Your task to perform on an android device: turn vacation reply on in the gmail app Image 0: 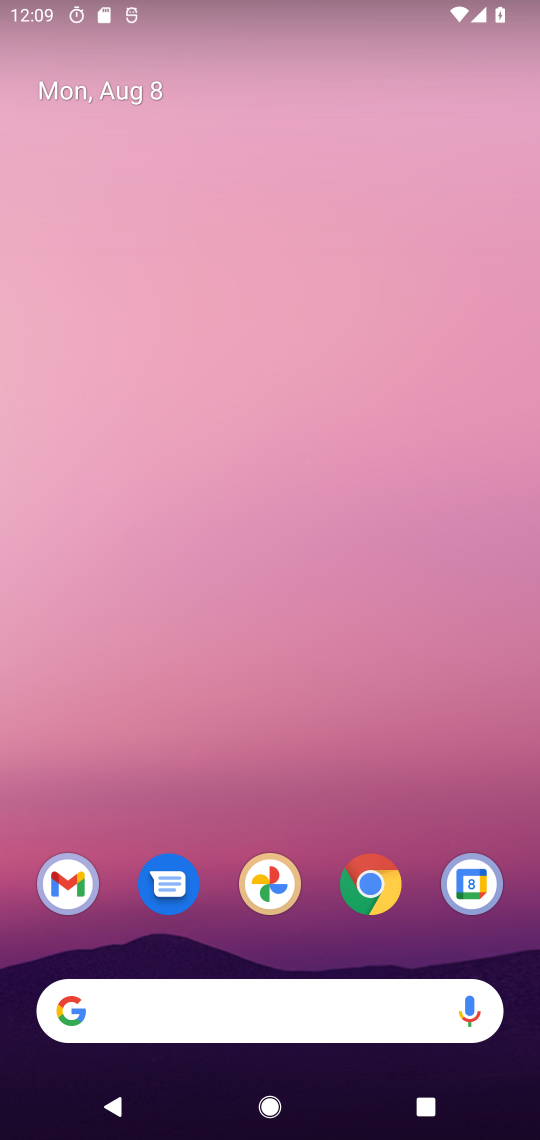
Step 0: click (59, 879)
Your task to perform on an android device: turn vacation reply on in the gmail app Image 1: 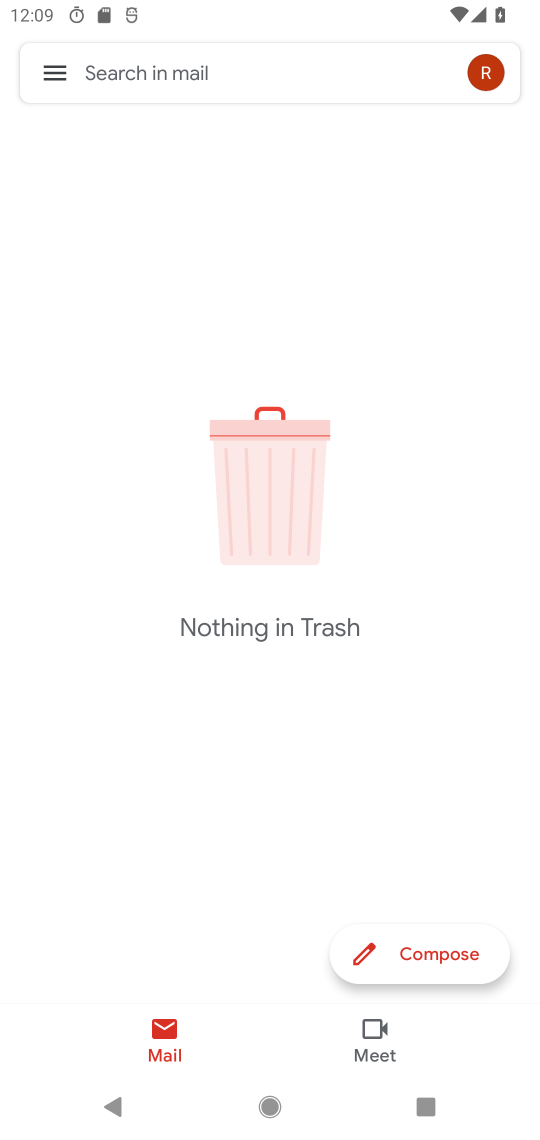
Step 1: click (53, 80)
Your task to perform on an android device: turn vacation reply on in the gmail app Image 2: 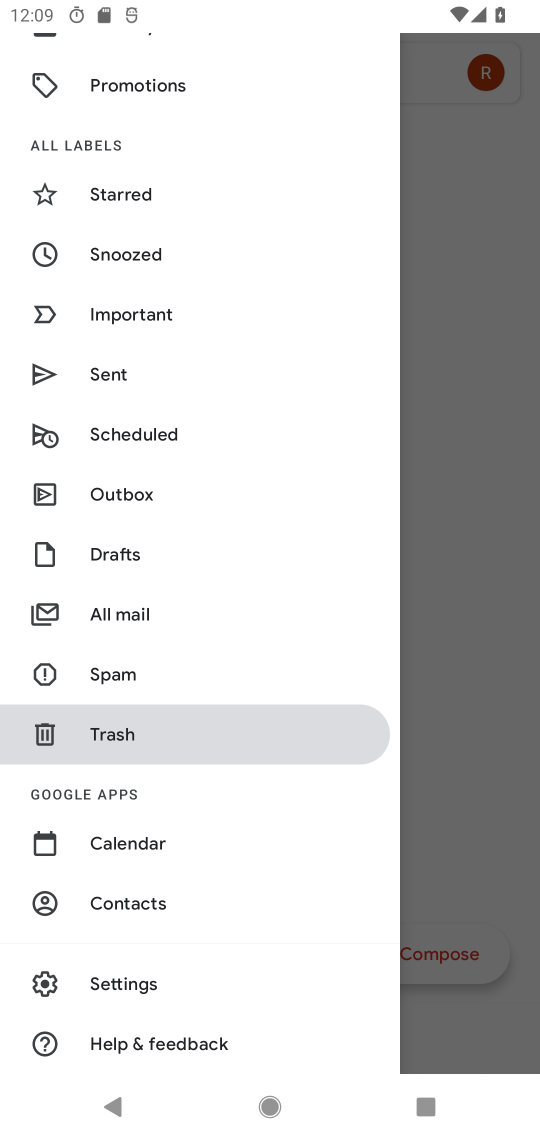
Step 2: click (146, 993)
Your task to perform on an android device: turn vacation reply on in the gmail app Image 3: 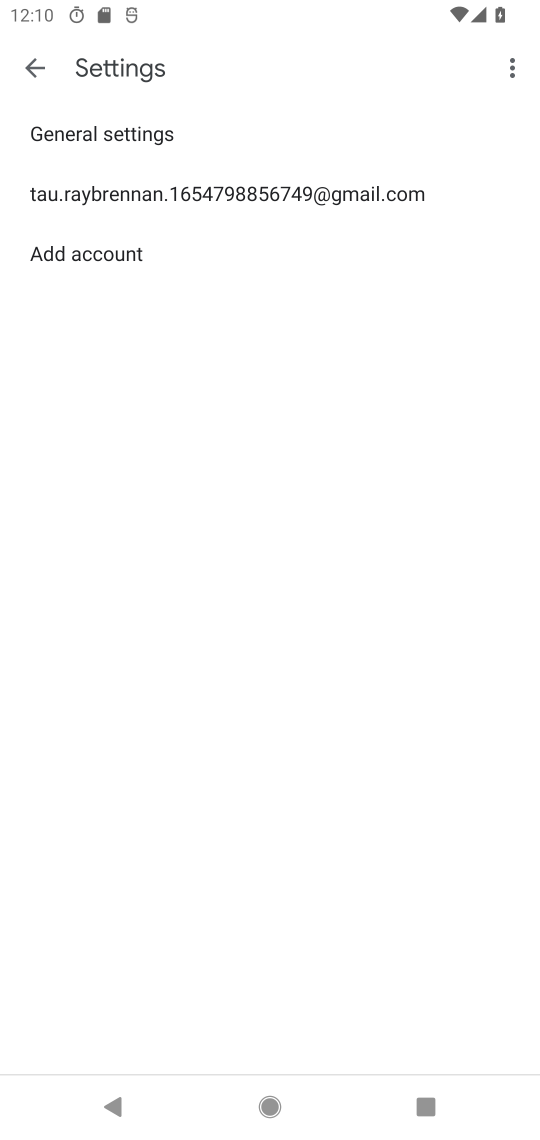
Step 3: click (152, 195)
Your task to perform on an android device: turn vacation reply on in the gmail app Image 4: 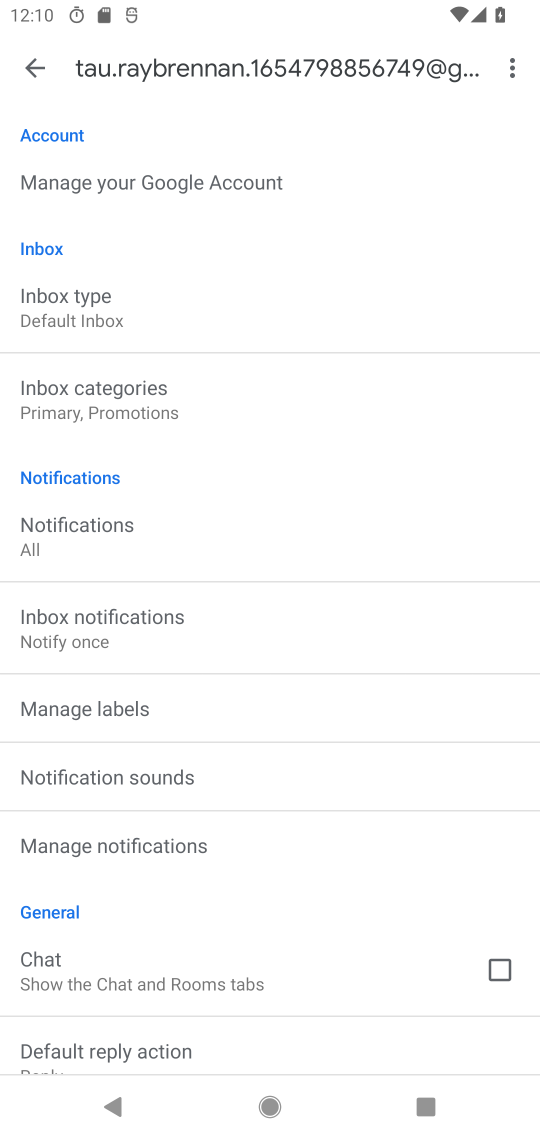
Step 4: drag from (211, 1010) to (249, 453)
Your task to perform on an android device: turn vacation reply on in the gmail app Image 5: 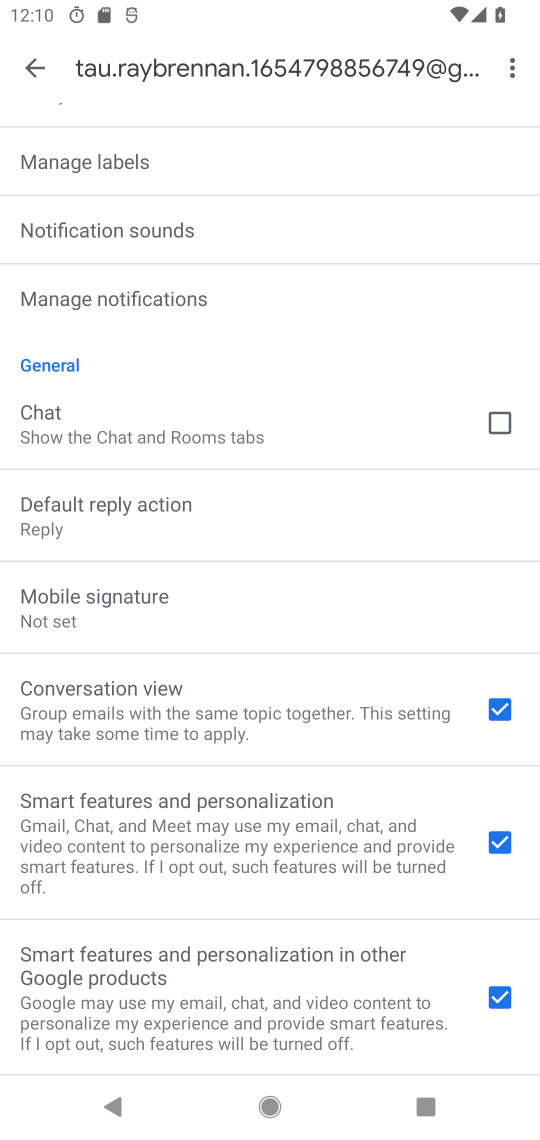
Step 5: drag from (249, 980) to (323, 395)
Your task to perform on an android device: turn vacation reply on in the gmail app Image 6: 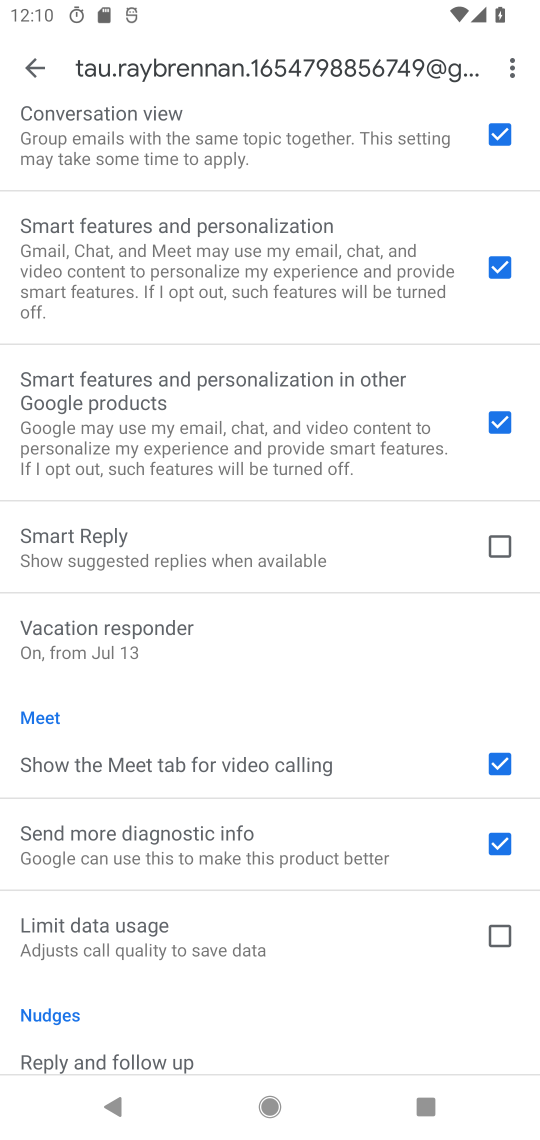
Step 6: drag from (206, 544) to (252, 255)
Your task to perform on an android device: turn vacation reply on in the gmail app Image 7: 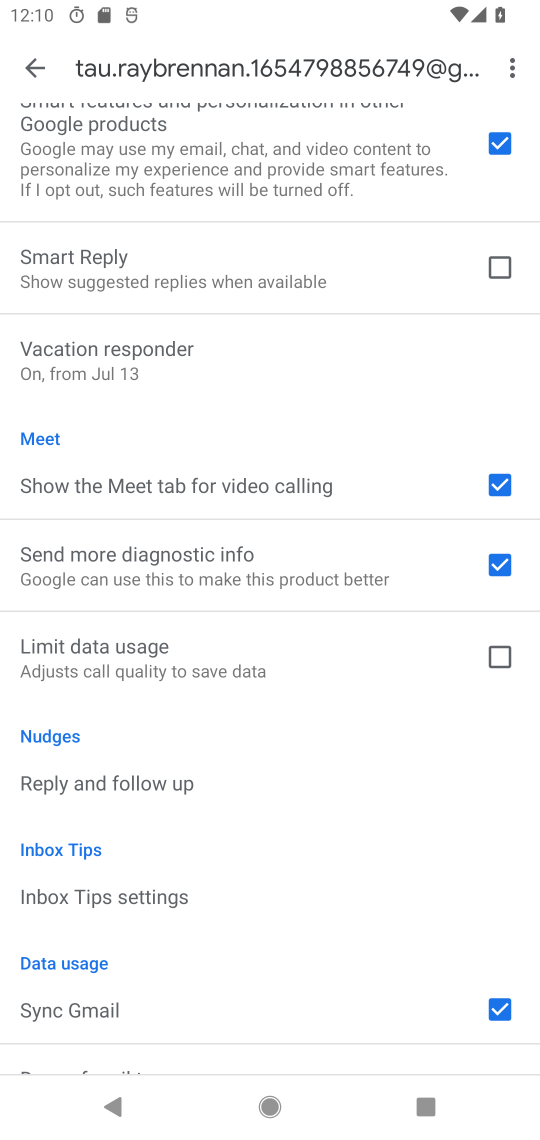
Step 7: drag from (252, 950) to (252, 455)
Your task to perform on an android device: turn vacation reply on in the gmail app Image 8: 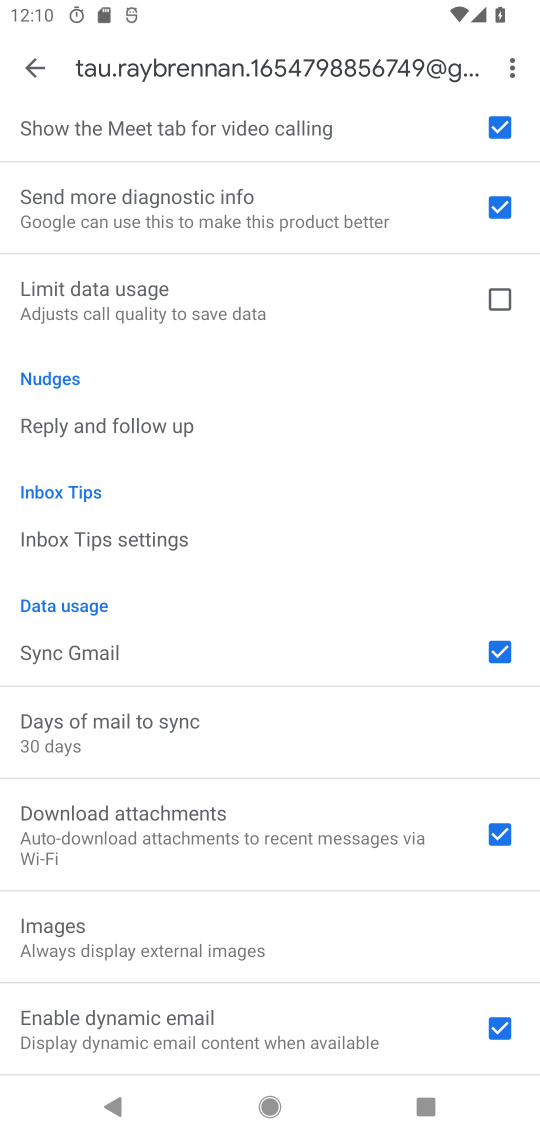
Step 8: drag from (258, 451) to (200, 1038)
Your task to perform on an android device: turn vacation reply on in the gmail app Image 9: 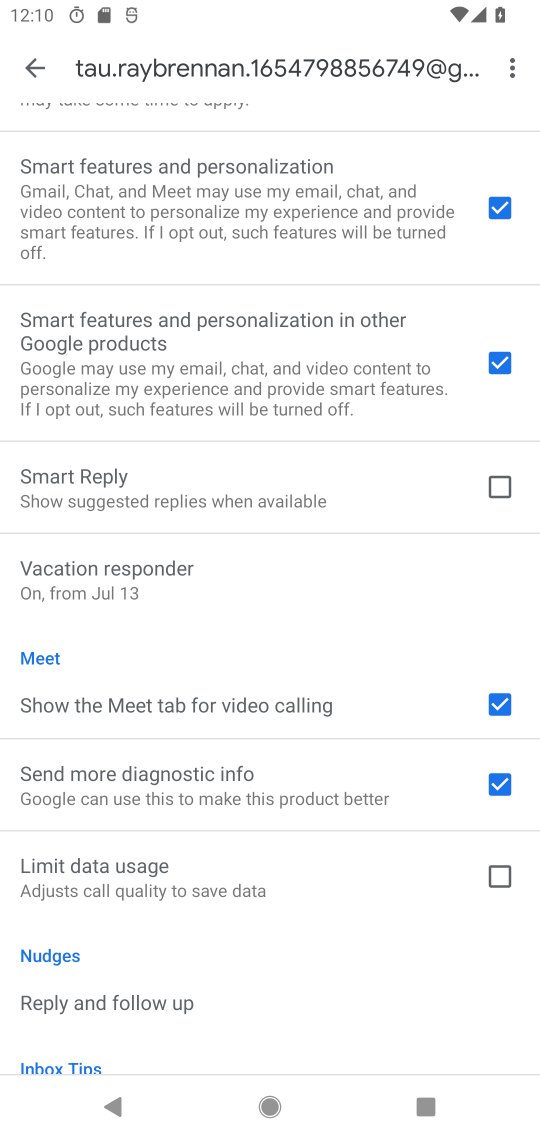
Step 9: click (184, 581)
Your task to perform on an android device: turn vacation reply on in the gmail app Image 10: 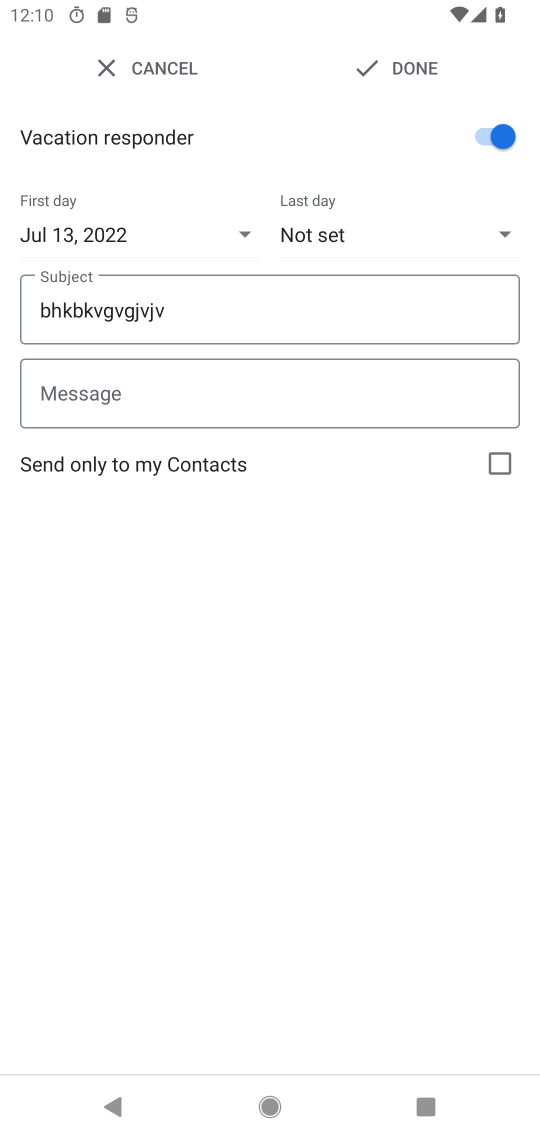
Step 10: click (419, 70)
Your task to perform on an android device: turn vacation reply on in the gmail app Image 11: 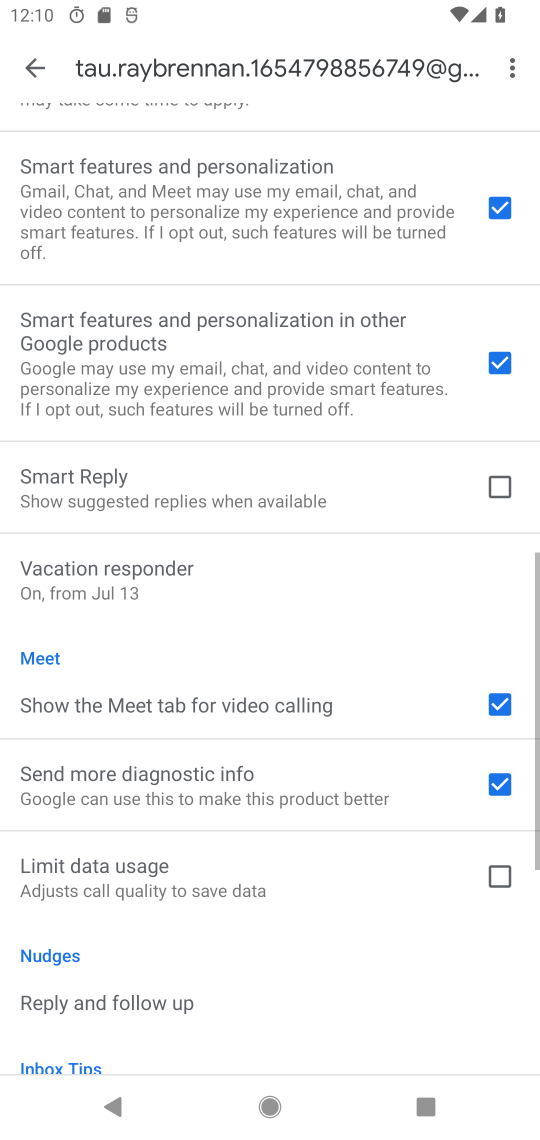
Step 11: task complete